Your task to perform on an android device: Show the shopping cart on ebay. Search for "logitech g903" on ebay, select the first entry, add it to the cart, then select checkout. Image 0: 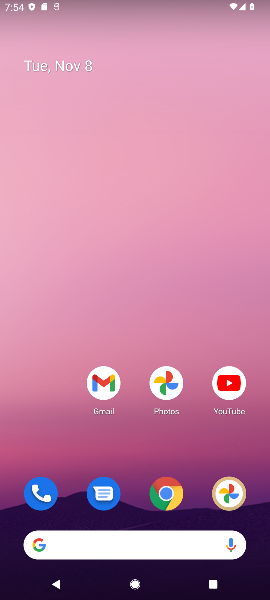
Step 0: click (165, 502)
Your task to perform on an android device: Show the shopping cart on ebay. Search for "logitech g903" on ebay, select the first entry, add it to the cart, then select checkout. Image 1: 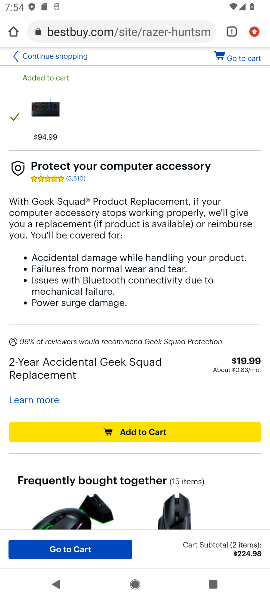
Step 1: click (85, 29)
Your task to perform on an android device: Show the shopping cart on ebay. Search for "logitech g903" on ebay, select the first entry, add it to the cart, then select checkout. Image 2: 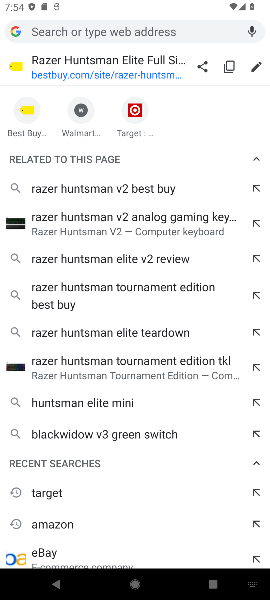
Step 2: type "ebay.com"
Your task to perform on an android device: Show the shopping cart on ebay. Search for "logitech g903" on ebay, select the first entry, add it to the cart, then select checkout. Image 3: 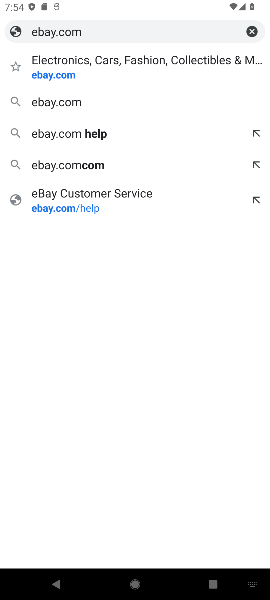
Step 3: click (43, 74)
Your task to perform on an android device: Show the shopping cart on ebay. Search for "logitech g903" on ebay, select the first entry, add it to the cart, then select checkout. Image 4: 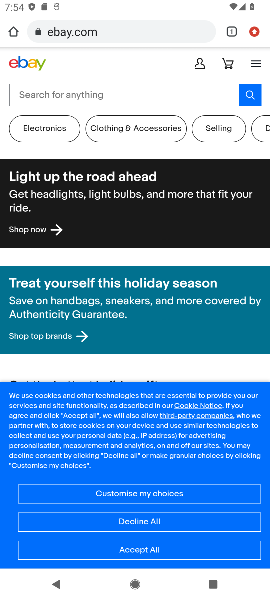
Step 4: click (231, 66)
Your task to perform on an android device: Show the shopping cart on ebay. Search for "logitech g903" on ebay, select the first entry, add it to the cart, then select checkout. Image 5: 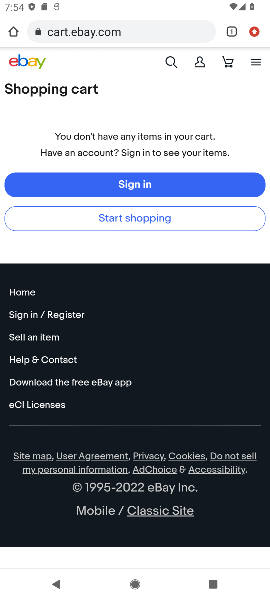
Step 5: click (171, 63)
Your task to perform on an android device: Show the shopping cart on ebay. Search for "logitech g903" on ebay, select the first entry, add it to the cart, then select checkout. Image 6: 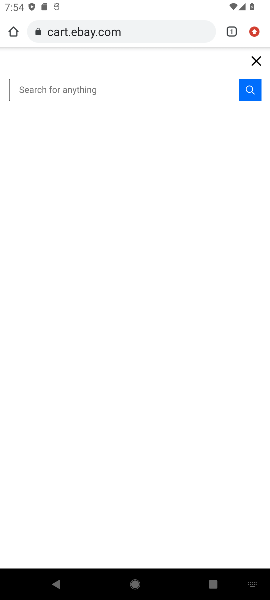
Step 6: type "logitech g903"
Your task to perform on an android device: Show the shopping cart on ebay. Search for "logitech g903" on ebay, select the first entry, add it to the cart, then select checkout. Image 7: 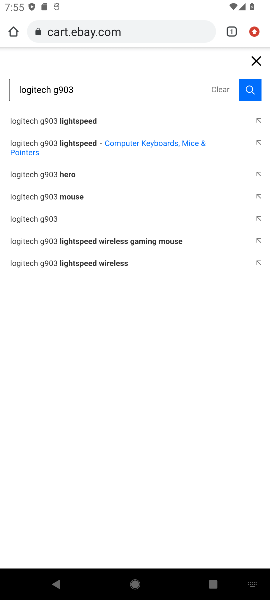
Step 7: click (249, 94)
Your task to perform on an android device: Show the shopping cart on ebay. Search for "logitech g903" on ebay, select the first entry, add it to the cart, then select checkout. Image 8: 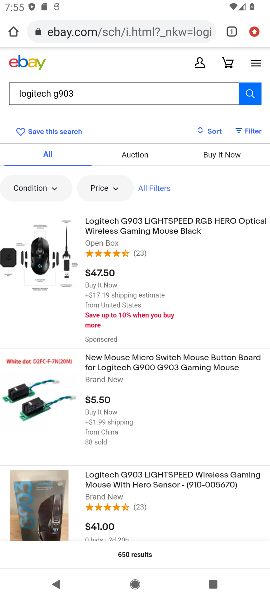
Step 8: click (37, 278)
Your task to perform on an android device: Show the shopping cart on ebay. Search for "logitech g903" on ebay, select the first entry, add it to the cart, then select checkout. Image 9: 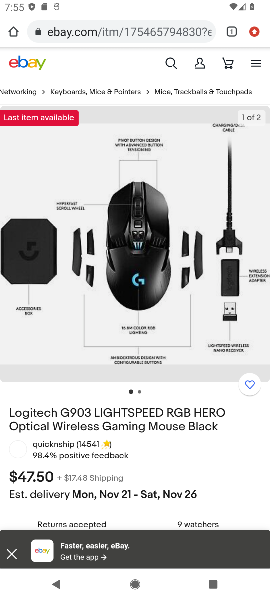
Step 9: drag from (165, 453) to (165, 264)
Your task to perform on an android device: Show the shopping cart on ebay. Search for "logitech g903" on ebay, select the first entry, add it to the cart, then select checkout. Image 10: 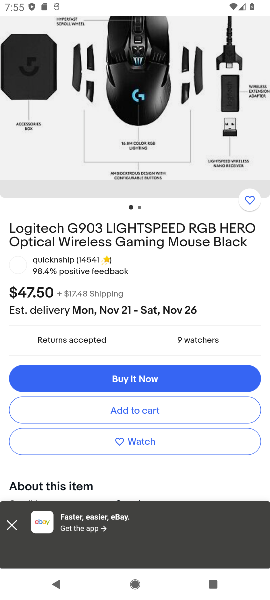
Step 10: click (125, 406)
Your task to perform on an android device: Show the shopping cart on ebay. Search for "logitech g903" on ebay, select the first entry, add it to the cart, then select checkout. Image 11: 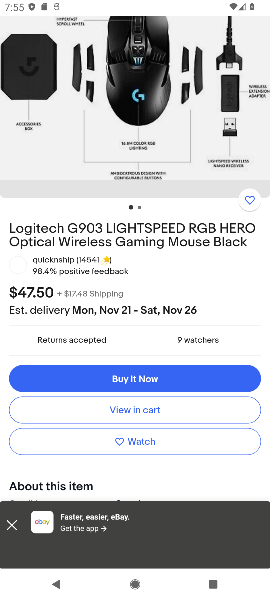
Step 11: click (125, 406)
Your task to perform on an android device: Show the shopping cart on ebay. Search for "logitech g903" on ebay, select the first entry, add it to the cart, then select checkout. Image 12: 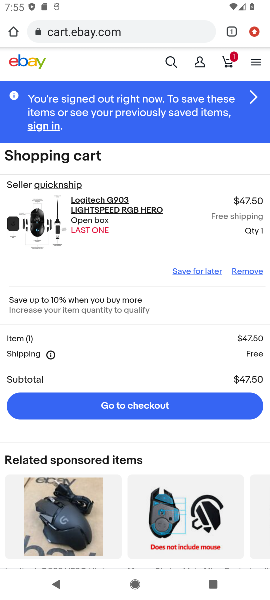
Step 12: click (126, 406)
Your task to perform on an android device: Show the shopping cart on ebay. Search for "logitech g903" on ebay, select the first entry, add it to the cart, then select checkout. Image 13: 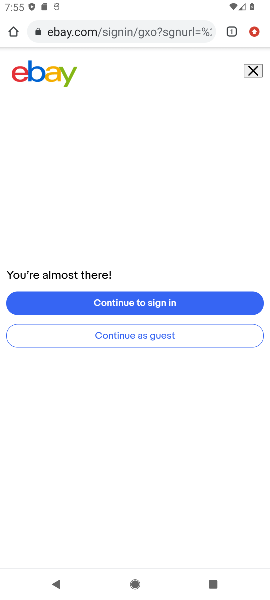
Step 13: task complete